Your task to perform on an android device: install app "Fetch Rewards" Image 0: 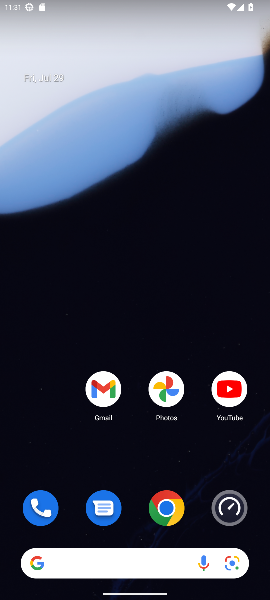
Step 0: drag from (158, 517) to (179, 114)
Your task to perform on an android device: install app "Fetch Rewards" Image 1: 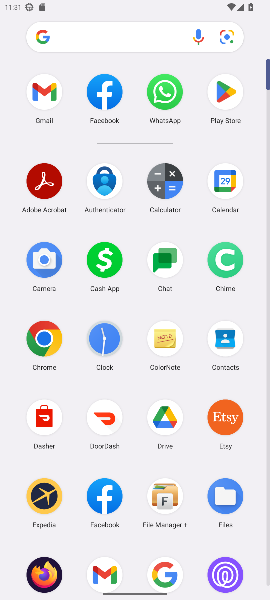
Step 1: click (222, 90)
Your task to perform on an android device: install app "Fetch Rewards" Image 2: 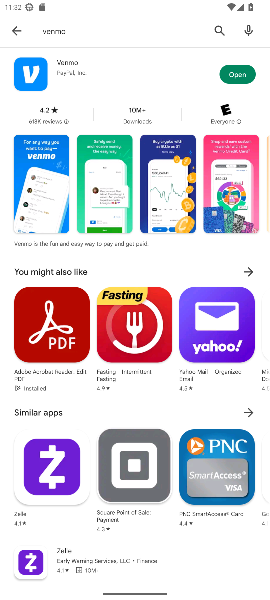
Step 2: click (216, 23)
Your task to perform on an android device: install app "Fetch Rewards" Image 3: 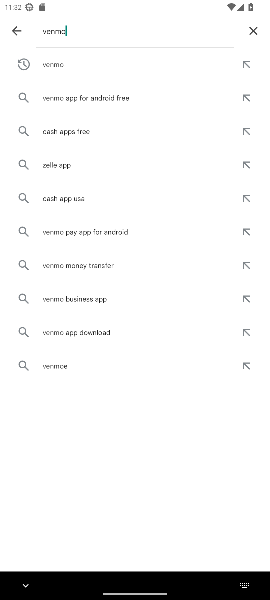
Step 3: click (253, 31)
Your task to perform on an android device: install app "Fetch Rewards" Image 4: 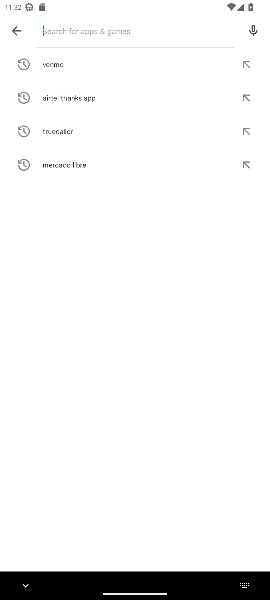
Step 4: type "fetch rewards"
Your task to perform on an android device: install app "Fetch Rewards" Image 5: 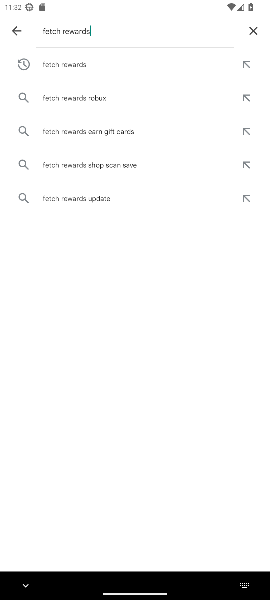
Step 5: click (78, 71)
Your task to perform on an android device: install app "Fetch Rewards" Image 6: 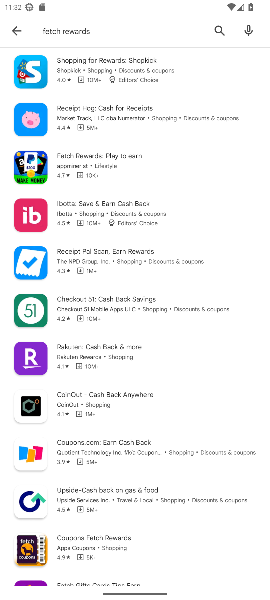
Step 6: task complete